Your task to perform on an android device: Search for dell xps on ebay, select the first entry, add it to the cart, then select checkout. Image 0: 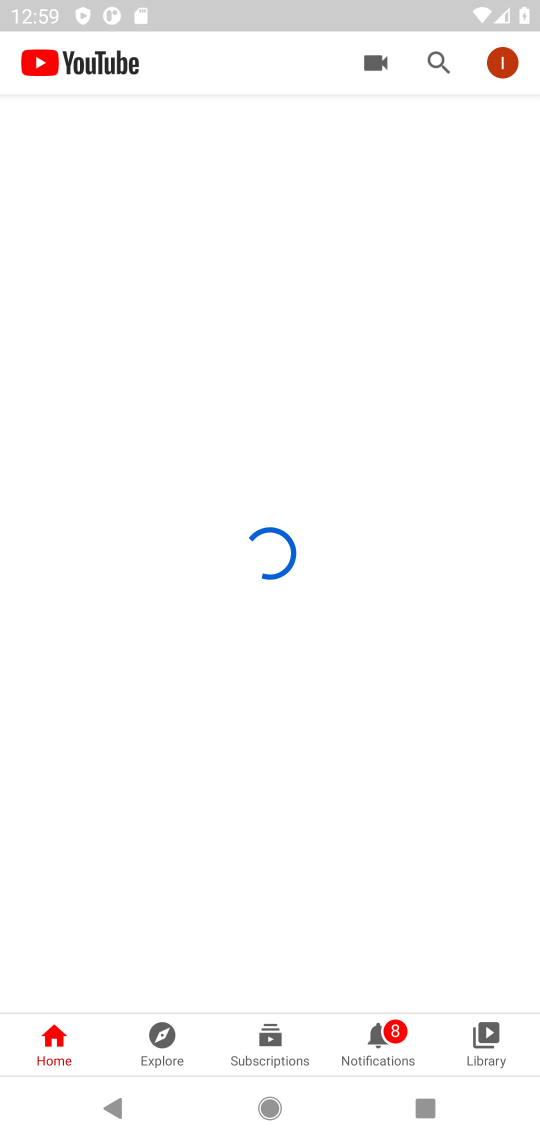
Step 0: press home button
Your task to perform on an android device: Search for dell xps on ebay, select the first entry, add it to the cart, then select checkout. Image 1: 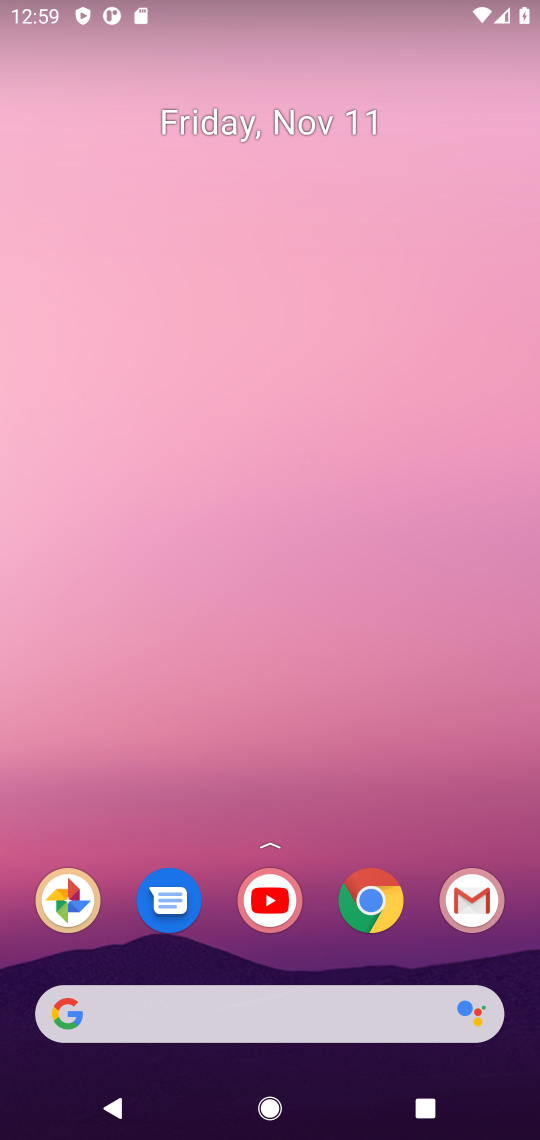
Step 1: click (385, 893)
Your task to perform on an android device: Search for dell xps on ebay, select the first entry, add it to the cart, then select checkout. Image 2: 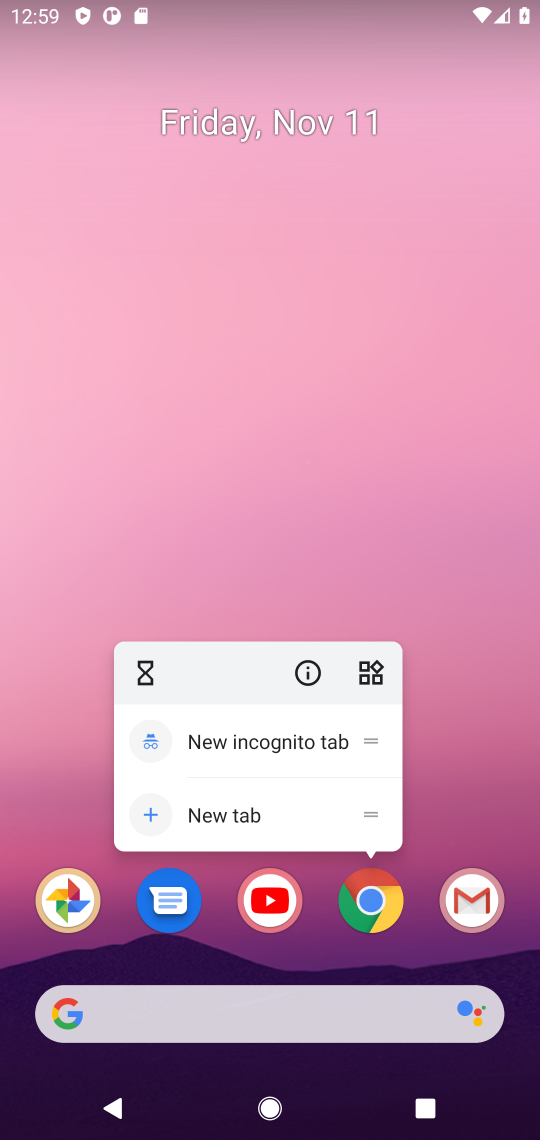
Step 2: click (385, 893)
Your task to perform on an android device: Search for dell xps on ebay, select the first entry, add it to the cart, then select checkout. Image 3: 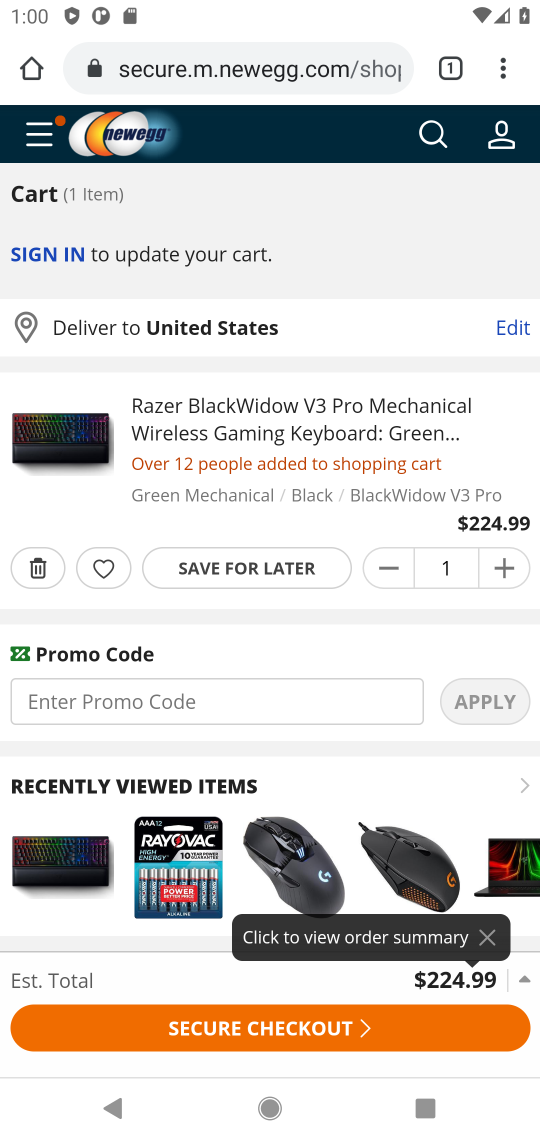
Step 3: click (340, 62)
Your task to perform on an android device: Search for dell xps on ebay, select the first entry, add it to the cart, then select checkout. Image 4: 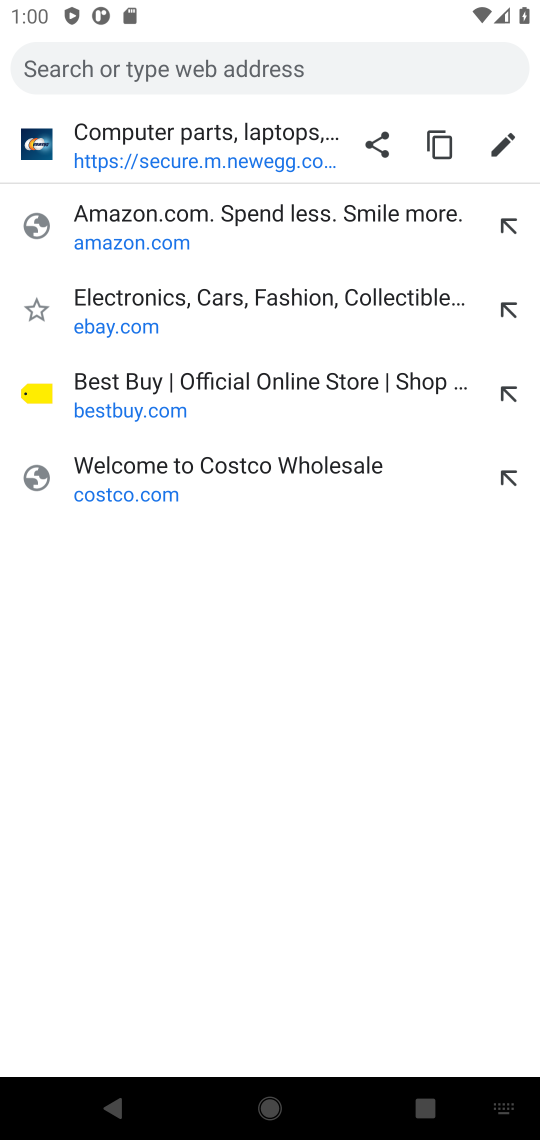
Step 4: click (140, 322)
Your task to perform on an android device: Search for dell xps on ebay, select the first entry, add it to the cart, then select checkout. Image 5: 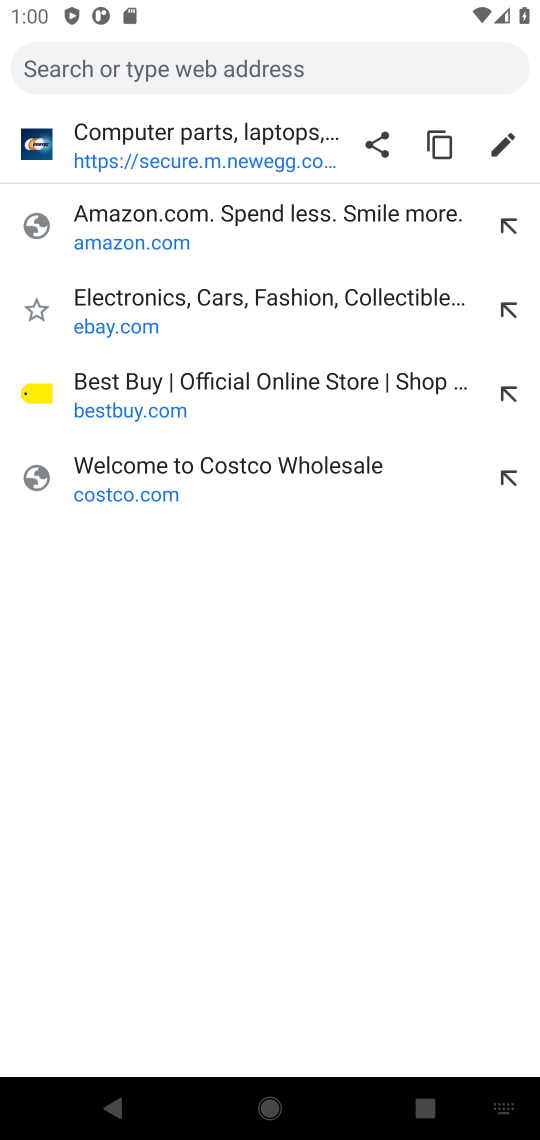
Step 5: click (94, 324)
Your task to perform on an android device: Search for dell xps on ebay, select the first entry, add it to the cart, then select checkout. Image 6: 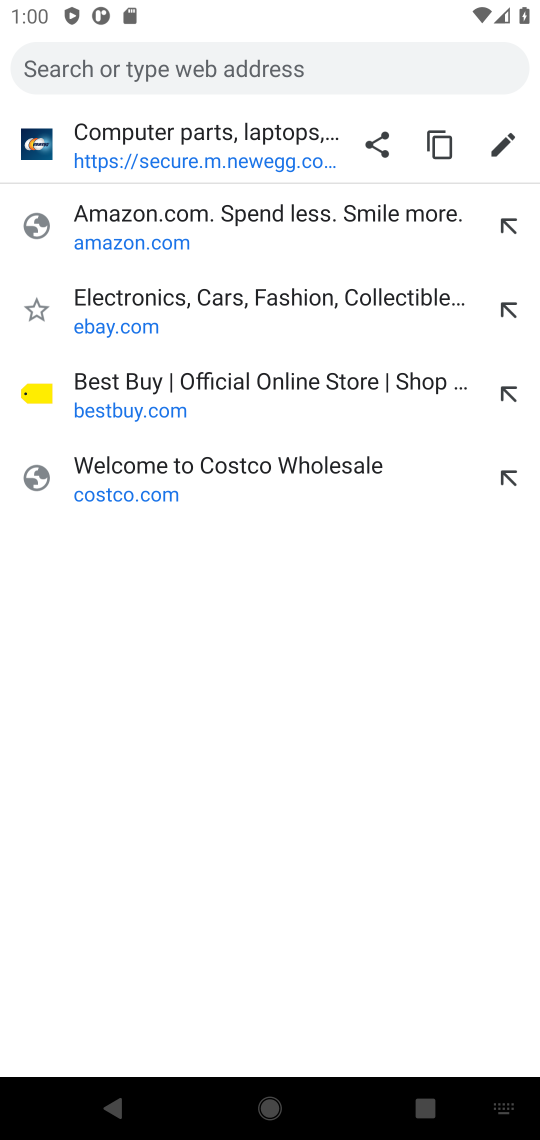
Step 6: click (124, 314)
Your task to perform on an android device: Search for dell xps on ebay, select the first entry, add it to the cart, then select checkout. Image 7: 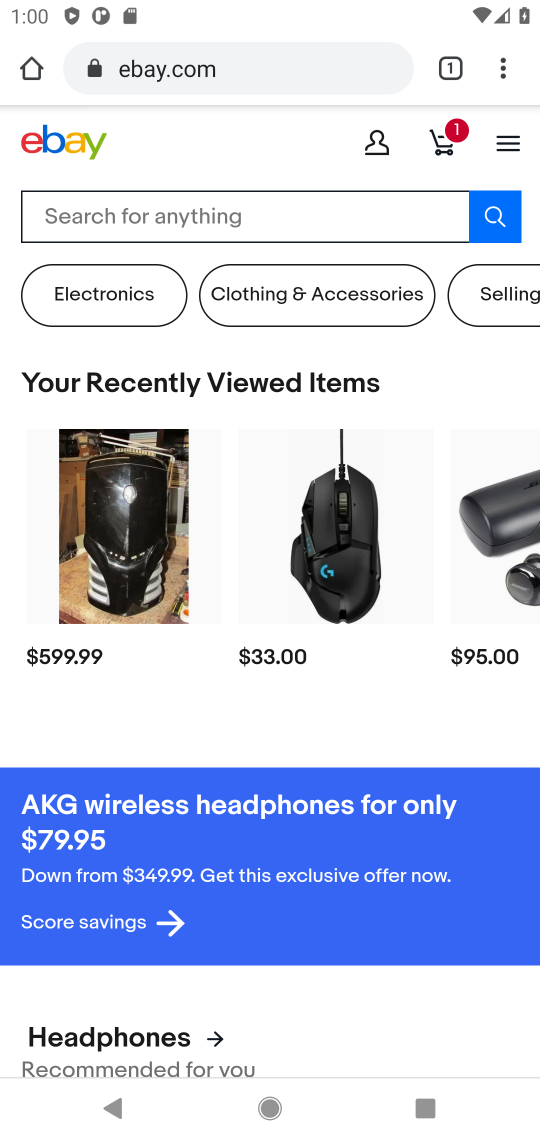
Step 7: click (184, 211)
Your task to perform on an android device: Search for dell xps on ebay, select the first entry, add it to the cart, then select checkout. Image 8: 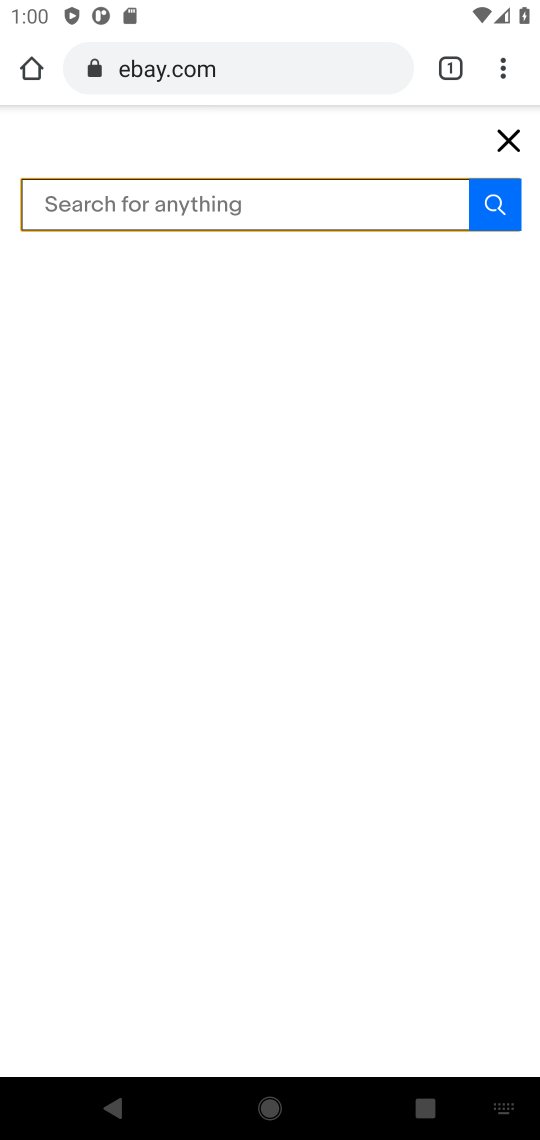
Step 8: type "dell xps"
Your task to perform on an android device: Search for dell xps on ebay, select the first entry, add it to the cart, then select checkout. Image 9: 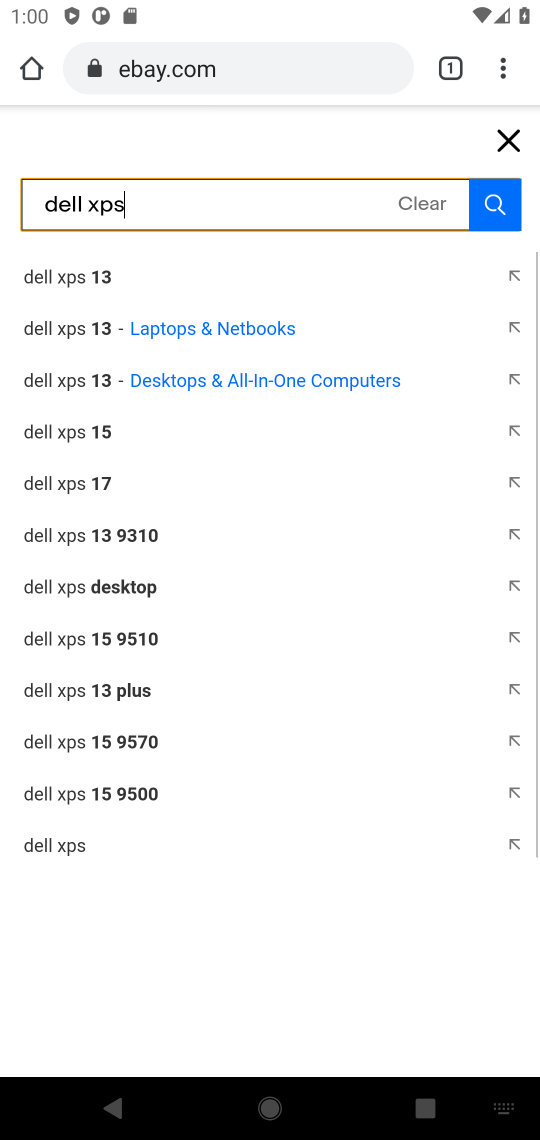
Step 9: press enter
Your task to perform on an android device: Search for dell xps on ebay, select the first entry, add it to the cart, then select checkout. Image 10: 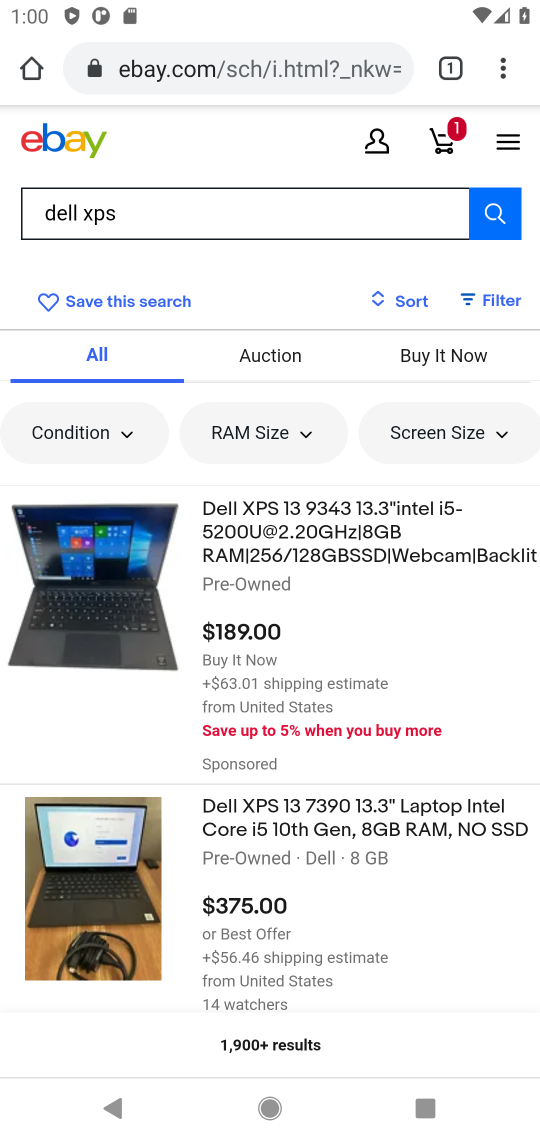
Step 10: click (305, 527)
Your task to perform on an android device: Search for dell xps on ebay, select the first entry, add it to the cart, then select checkout. Image 11: 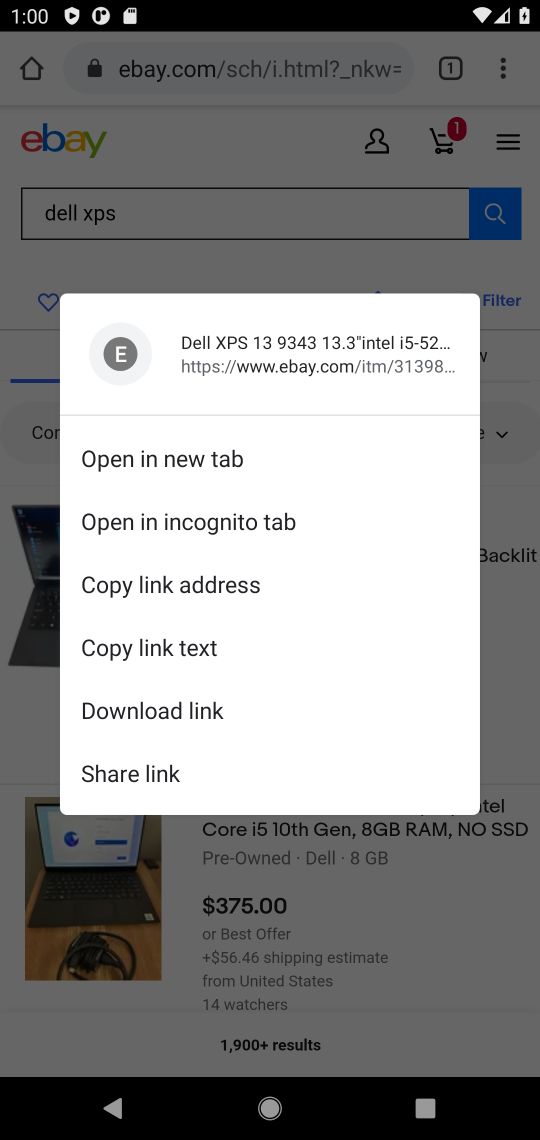
Step 11: click (525, 558)
Your task to perform on an android device: Search for dell xps on ebay, select the first entry, add it to the cart, then select checkout. Image 12: 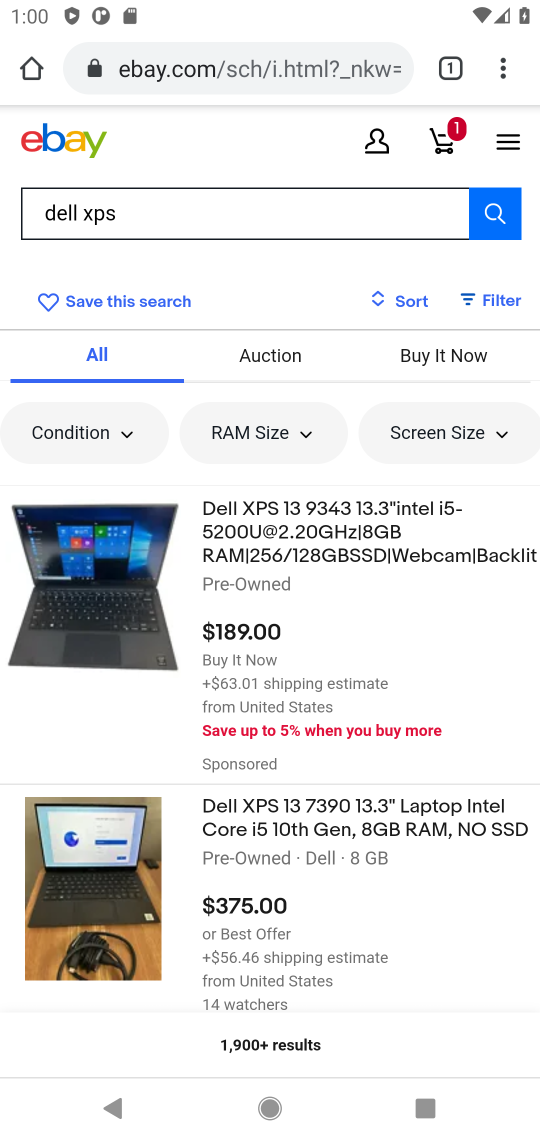
Step 12: click (196, 536)
Your task to perform on an android device: Search for dell xps on ebay, select the first entry, add it to the cart, then select checkout. Image 13: 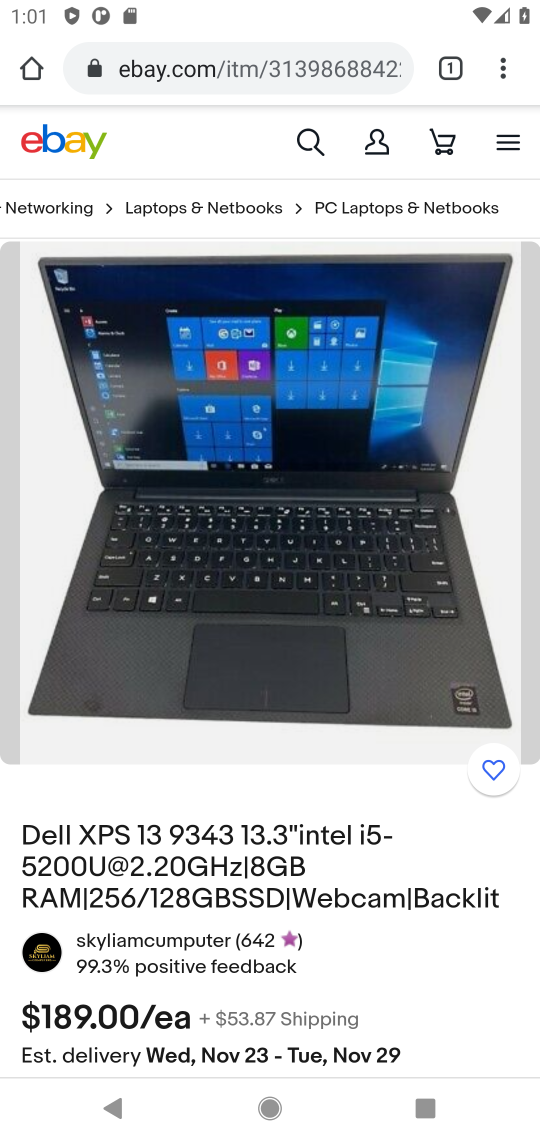
Step 13: drag from (318, 929) to (292, 198)
Your task to perform on an android device: Search for dell xps on ebay, select the first entry, add it to the cart, then select checkout. Image 14: 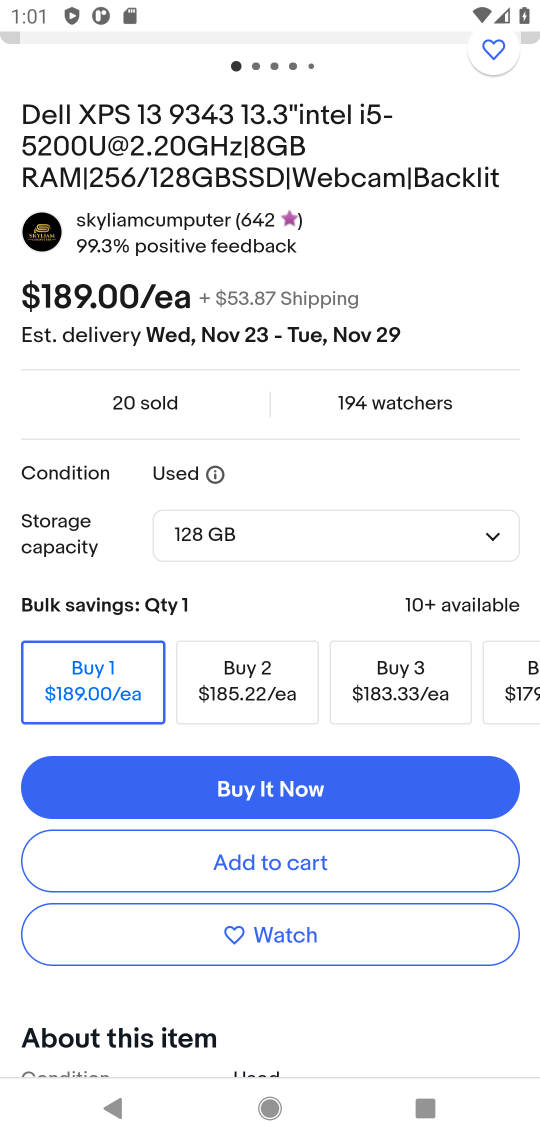
Step 14: click (291, 854)
Your task to perform on an android device: Search for dell xps on ebay, select the first entry, add it to the cart, then select checkout. Image 15: 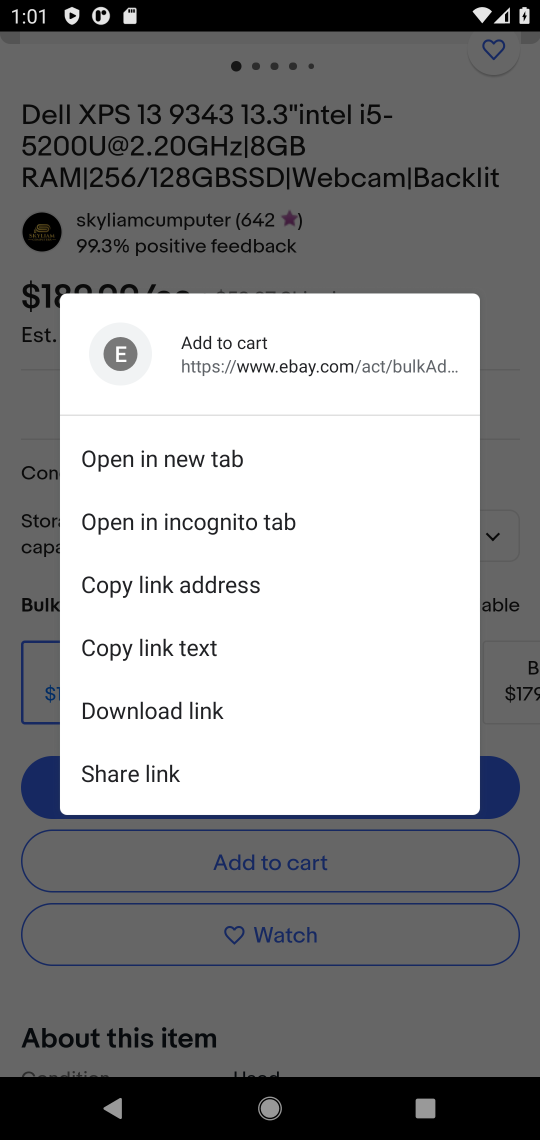
Step 15: click (276, 870)
Your task to perform on an android device: Search for dell xps on ebay, select the first entry, add it to the cart, then select checkout. Image 16: 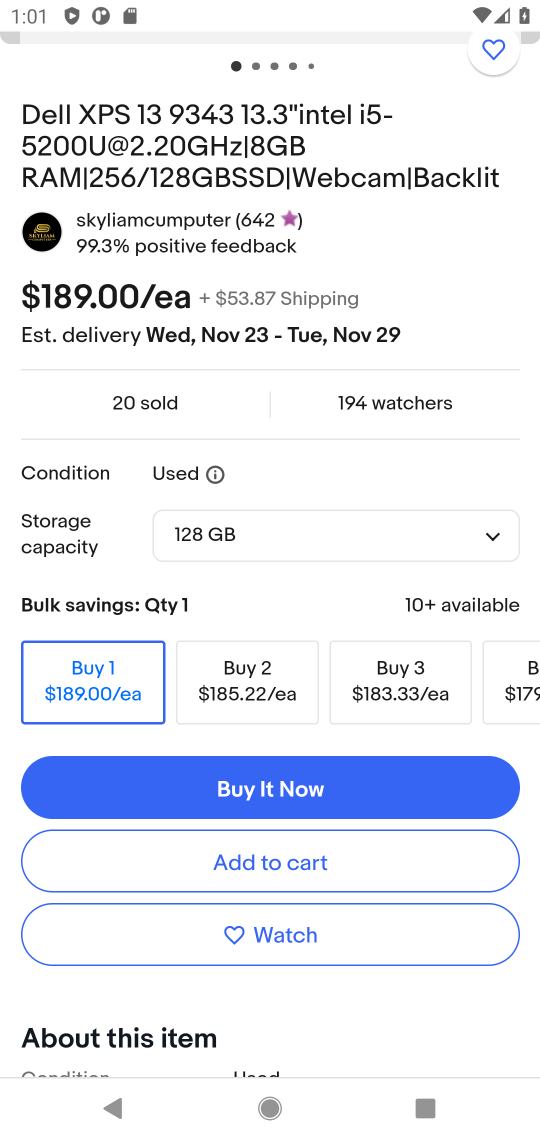
Step 16: click (290, 857)
Your task to perform on an android device: Search for dell xps on ebay, select the first entry, add it to the cart, then select checkout. Image 17: 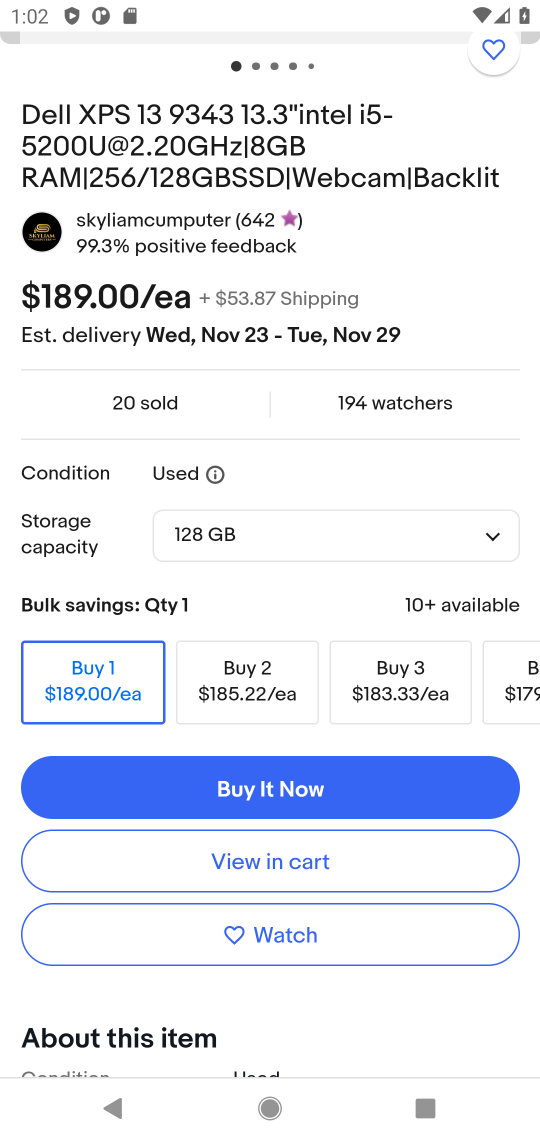
Step 17: click (290, 854)
Your task to perform on an android device: Search for dell xps on ebay, select the first entry, add it to the cart, then select checkout. Image 18: 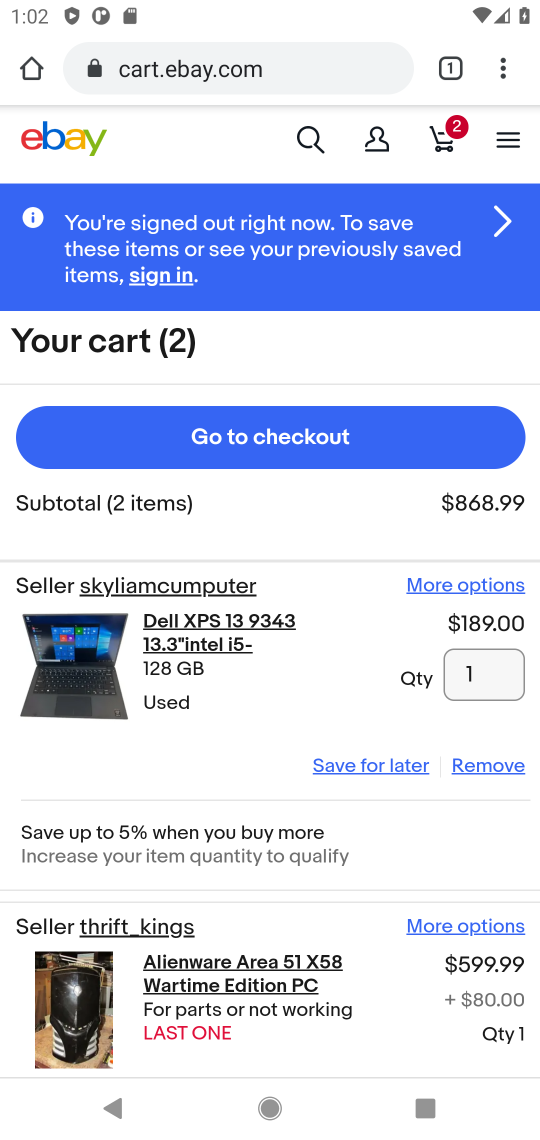
Step 18: drag from (376, 982) to (506, 530)
Your task to perform on an android device: Search for dell xps on ebay, select the first entry, add it to the cart, then select checkout. Image 19: 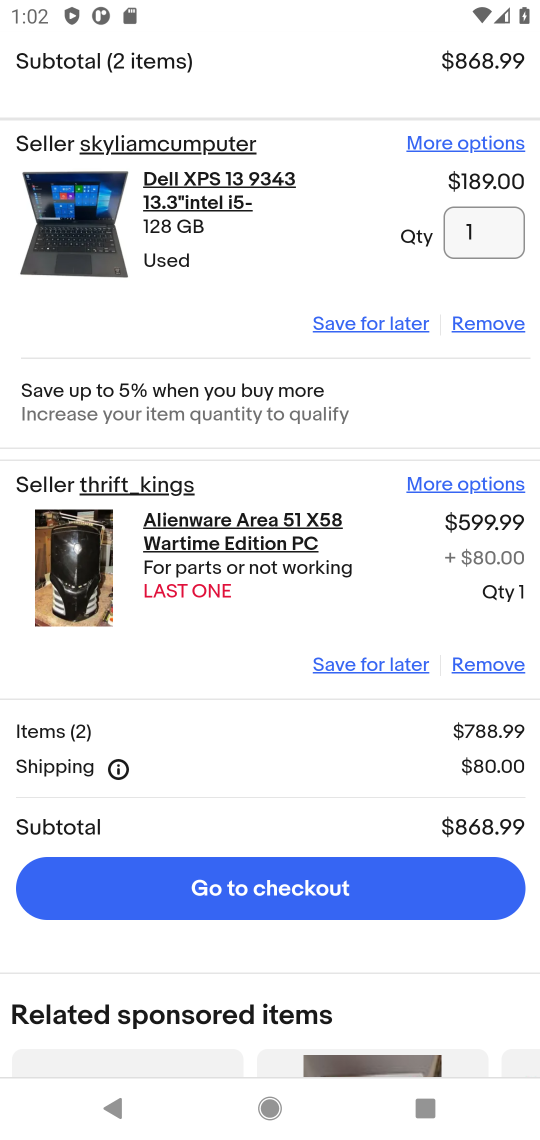
Step 19: click (498, 663)
Your task to perform on an android device: Search for dell xps on ebay, select the first entry, add it to the cart, then select checkout. Image 20: 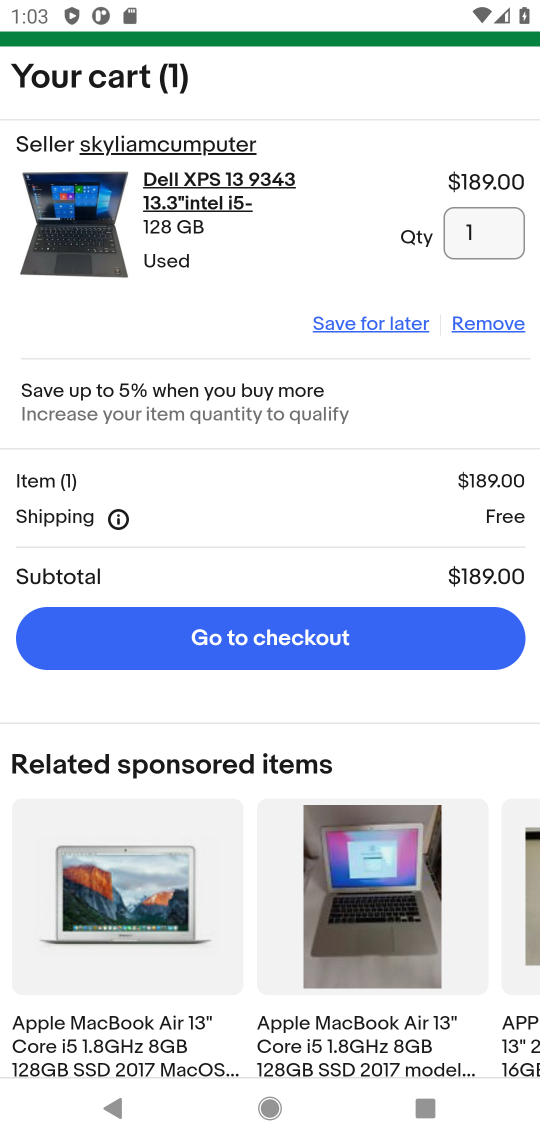
Step 20: click (327, 638)
Your task to perform on an android device: Search for dell xps on ebay, select the first entry, add it to the cart, then select checkout. Image 21: 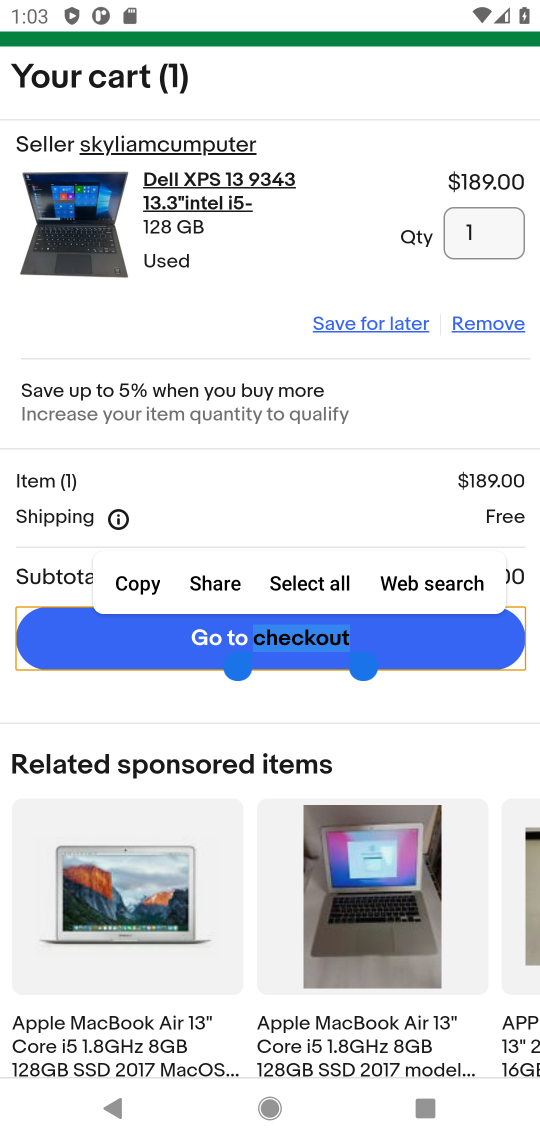
Step 21: click (229, 630)
Your task to perform on an android device: Search for dell xps on ebay, select the first entry, add it to the cart, then select checkout. Image 22: 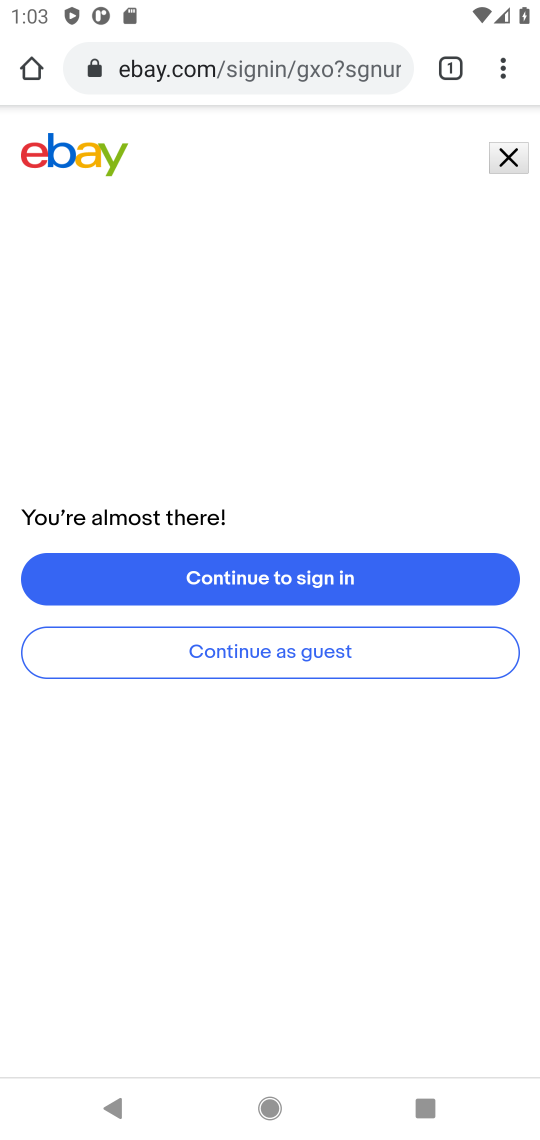
Step 22: task complete